Your task to perform on an android device: toggle notification dots Image 0: 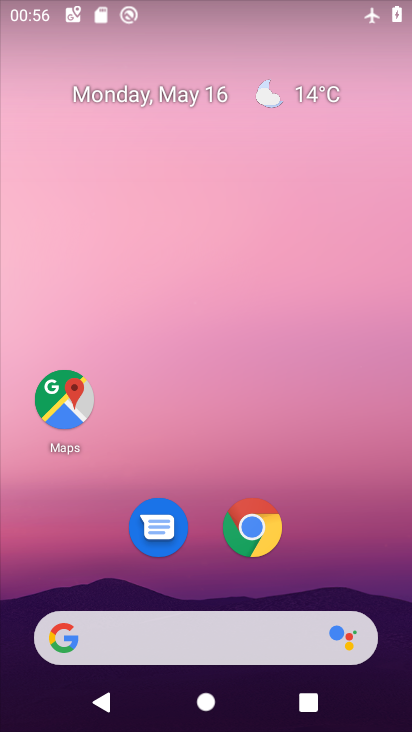
Step 0: drag from (195, 574) to (243, 13)
Your task to perform on an android device: toggle notification dots Image 1: 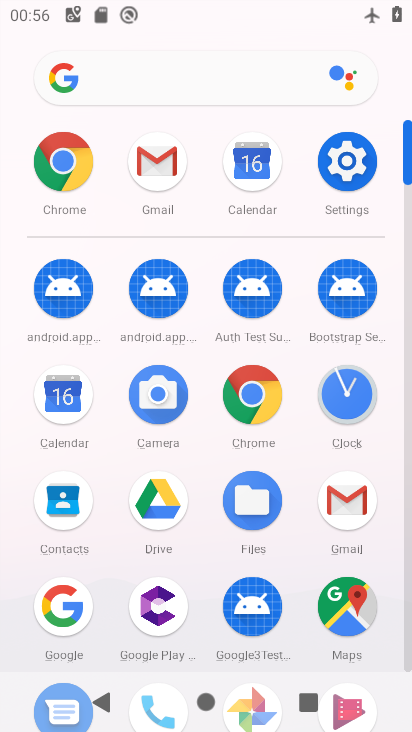
Step 1: click (345, 153)
Your task to perform on an android device: toggle notification dots Image 2: 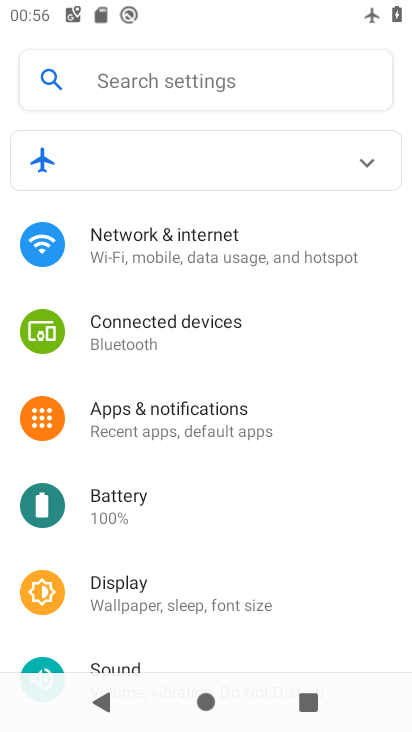
Step 2: click (232, 419)
Your task to perform on an android device: toggle notification dots Image 3: 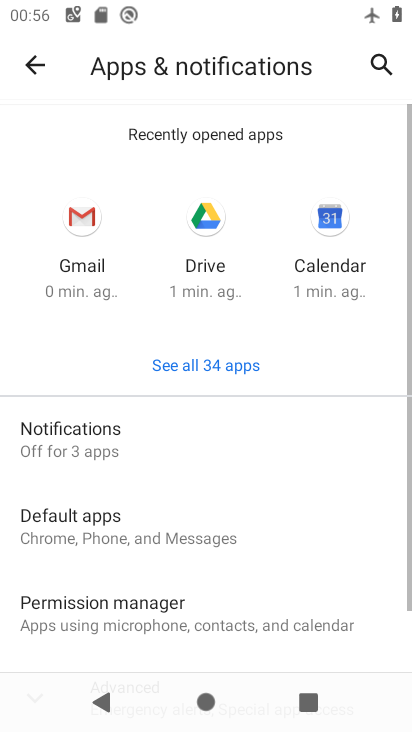
Step 3: click (108, 449)
Your task to perform on an android device: toggle notification dots Image 4: 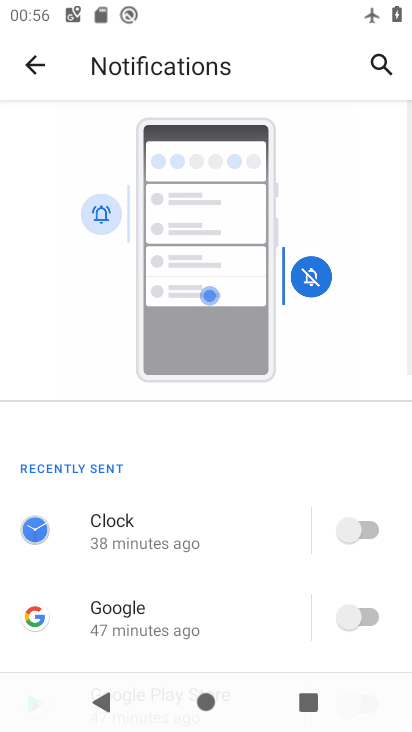
Step 4: drag from (157, 569) to (243, 208)
Your task to perform on an android device: toggle notification dots Image 5: 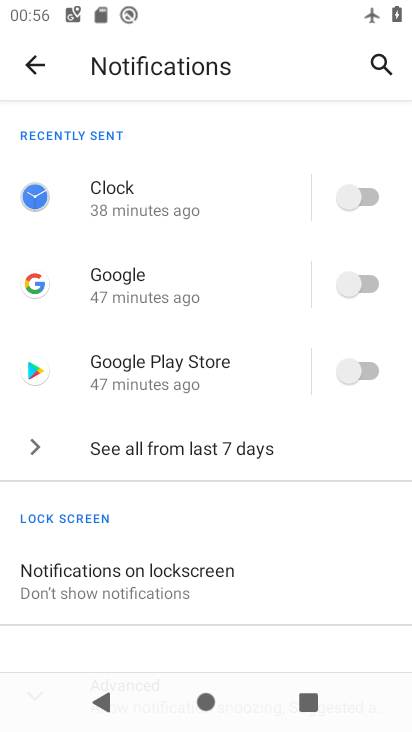
Step 5: drag from (176, 590) to (197, 387)
Your task to perform on an android device: toggle notification dots Image 6: 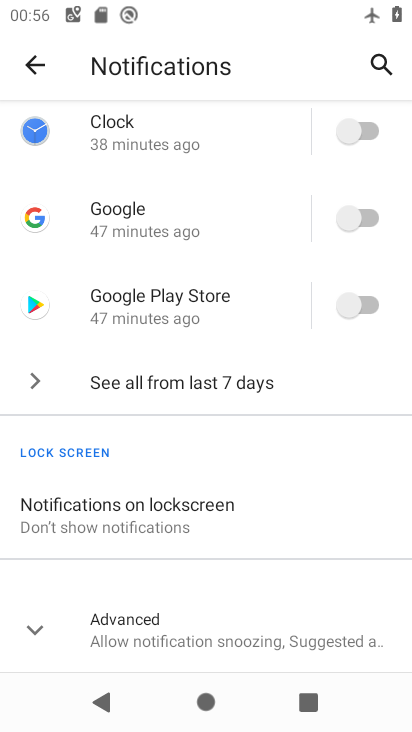
Step 6: click (129, 640)
Your task to perform on an android device: toggle notification dots Image 7: 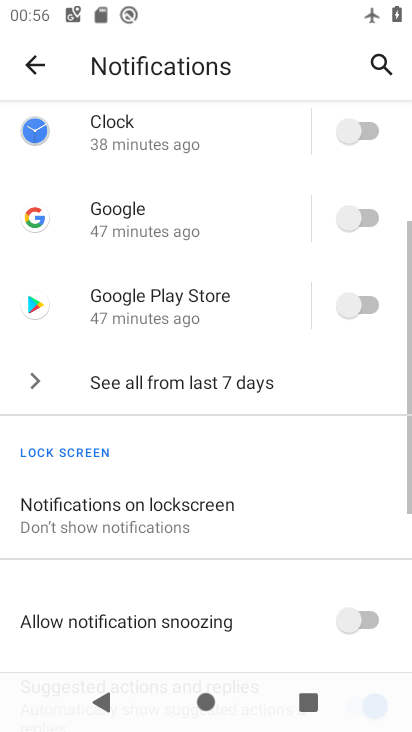
Step 7: drag from (178, 585) to (215, 345)
Your task to perform on an android device: toggle notification dots Image 8: 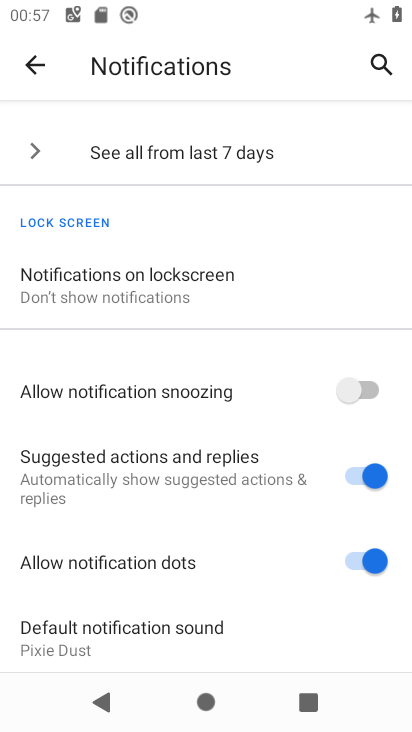
Step 8: click (344, 551)
Your task to perform on an android device: toggle notification dots Image 9: 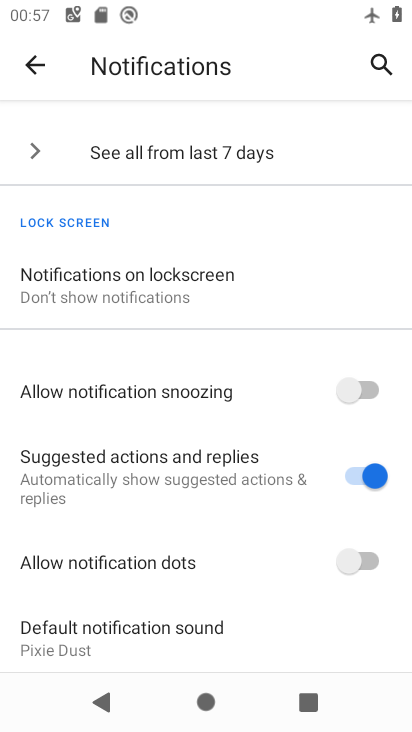
Step 9: task complete